Your task to perform on an android device: install app "Google Drive" Image 0: 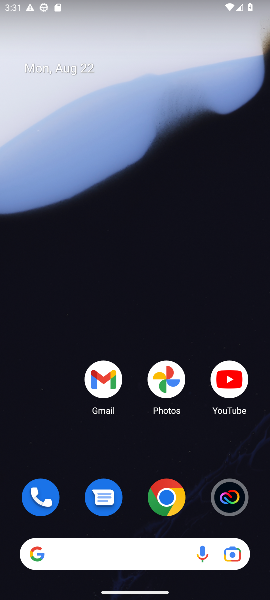
Step 0: drag from (145, 434) to (157, 98)
Your task to perform on an android device: install app "Google Drive" Image 1: 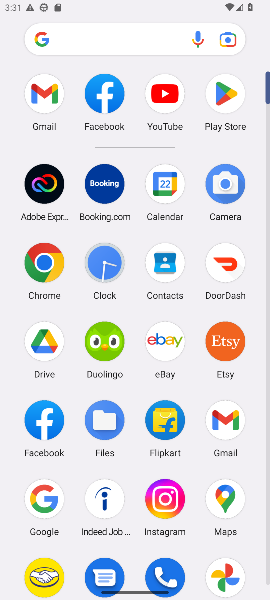
Step 1: click (218, 98)
Your task to perform on an android device: install app "Google Drive" Image 2: 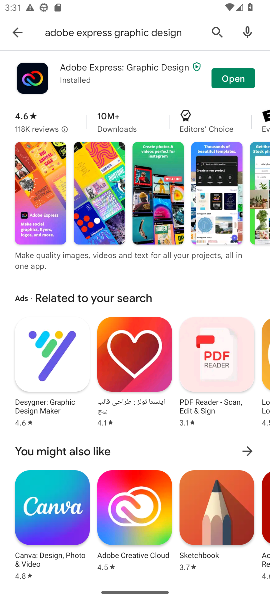
Step 2: click (216, 36)
Your task to perform on an android device: install app "Google Drive" Image 3: 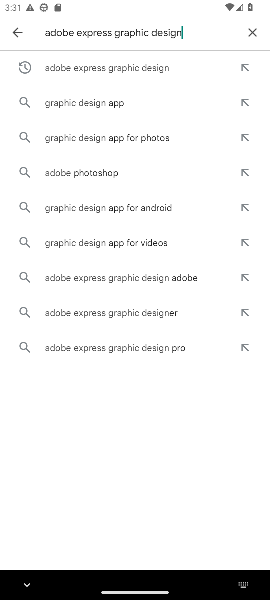
Step 3: click (248, 27)
Your task to perform on an android device: install app "Google Drive" Image 4: 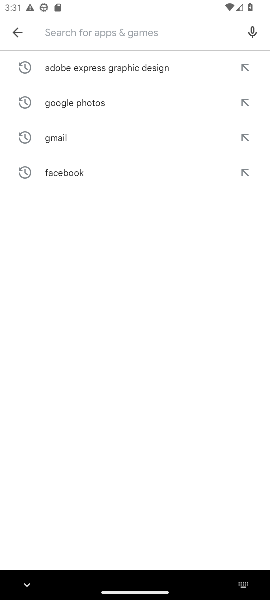
Step 4: type "Google Drive"
Your task to perform on an android device: install app "Google Drive" Image 5: 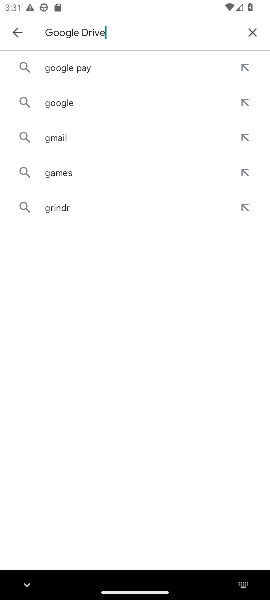
Step 5: type ""
Your task to perform on an android device: install app "Google Drive" Image 6: 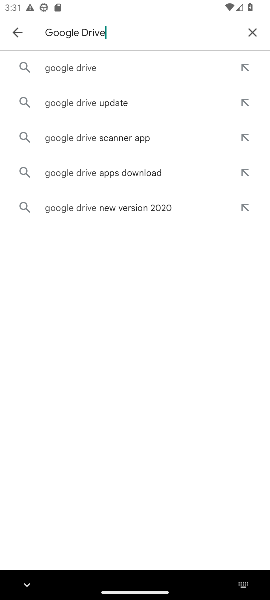
Step 6: click (82, 71)
Your task to perform on an android device: install app "Google Drive" Image 7: 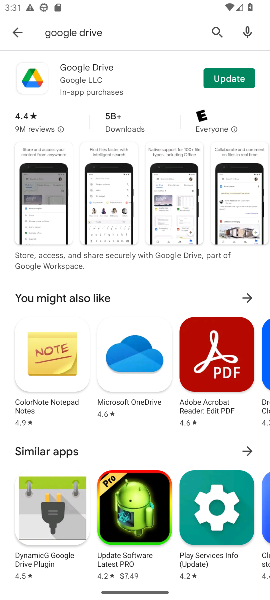
Step 7: click (139, 96)
Your task to perform on an android device: install app "Google Drive" Image 8: 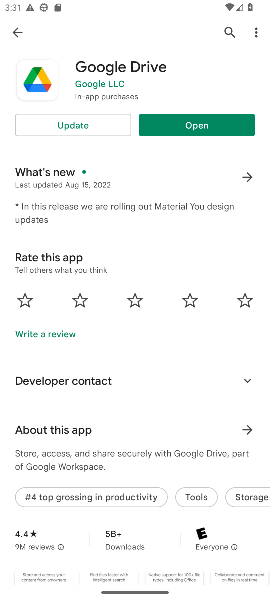
Step 8: task complete